Your task to perform on an android device: move an email to a new category in the gmail app Image 0: 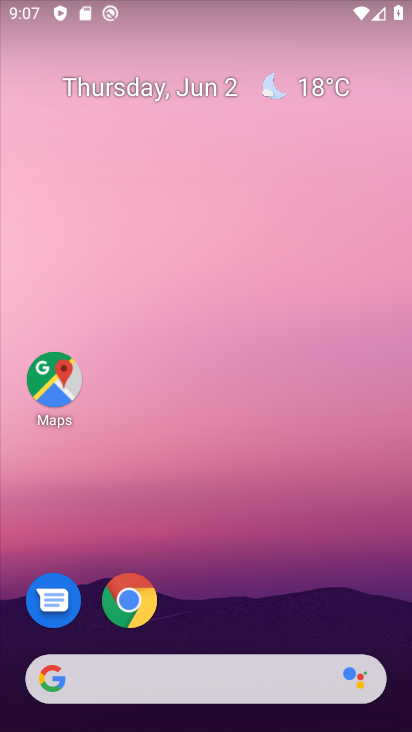
Step 0: drag from (226, 612) to (292, 115)
Your task to perform on an android device: move an email to a new category in the gmail app Image 1: 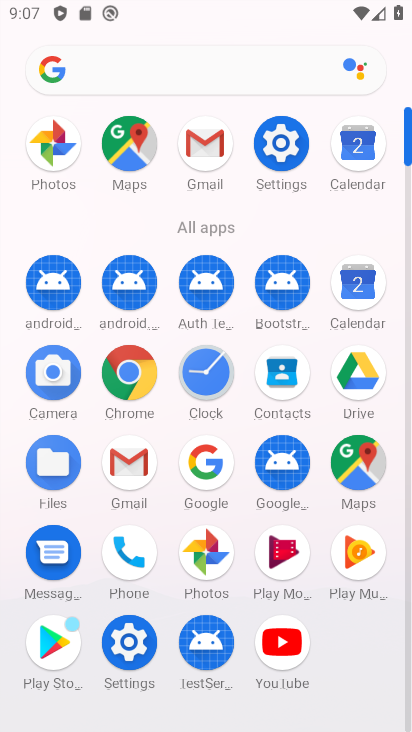
Step 1: click (130, 461)
Your task to perform on an android device: move an email to a new category in the gmail app Image 2: 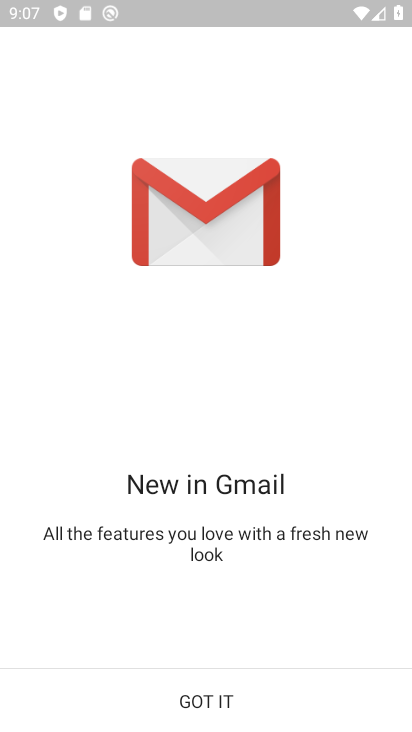
Step 2: click (236, 683)
Your task to perform on an android device: move an email to a new category in the gmail app Image 3: 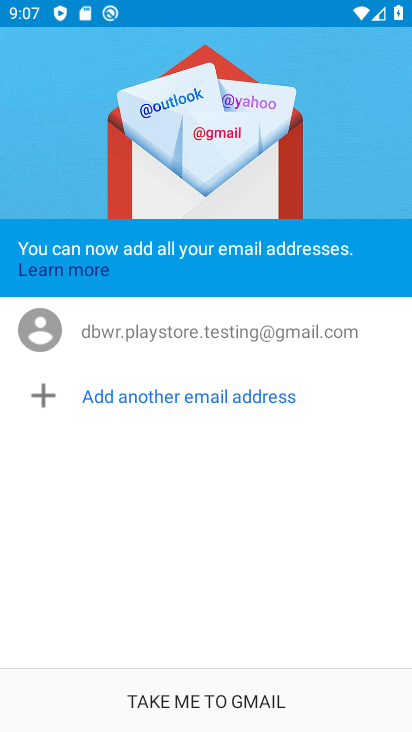
Step 3: click (236, 683)
Your task to perform on an android device: move an email to a new category in the gmail app Image 4: 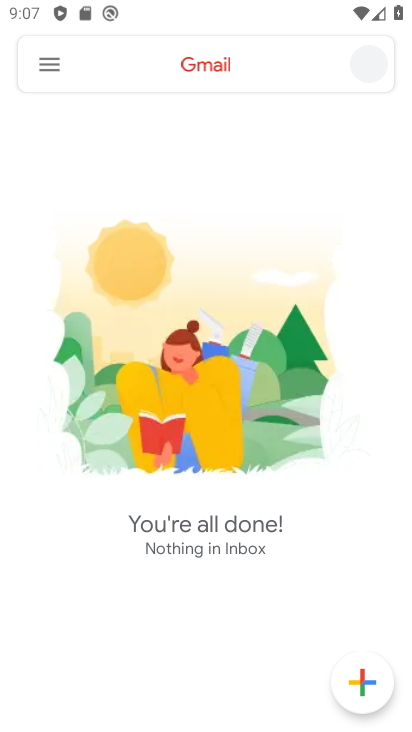
Step 4: click (50, 64)
Your task to perform on an android device: move an email to a new category in the gmail app Image 5: 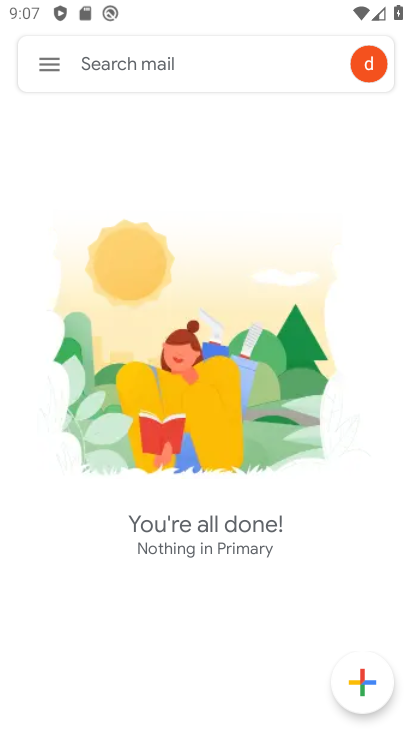
Step 5: click (45, 57)
Your task to perform on an android device: move an email to a new category in the gmail app Image 6: 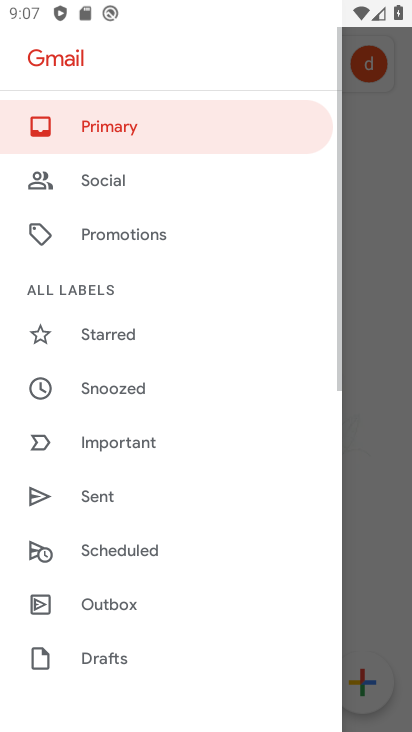
Step 6: drag from (138, 488) to (183, 217)
Your task to perform on an android device: move an email to a new category in the gmail app Image 7: 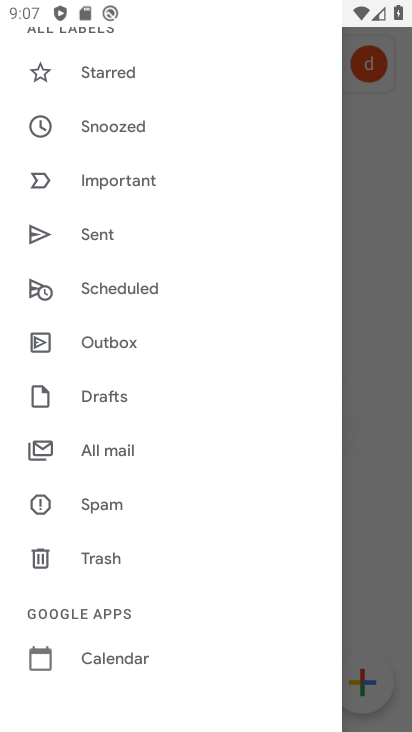
Step 7: click (147, 443)
Your task to perform on an android device: move an email to a new category in the gmail app Image 8: 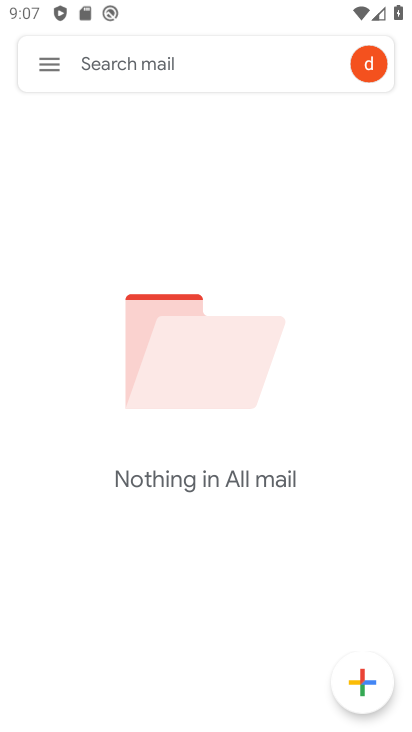
Step 8: task complete